Your task to perform on an android device: turn on airplane mode Image 0: 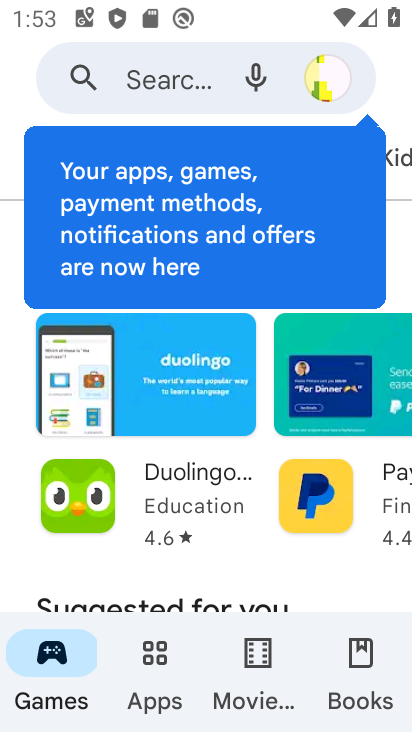
Step 0: press home button
Your task to perform on an android device: turn on airplane mode Image 1: 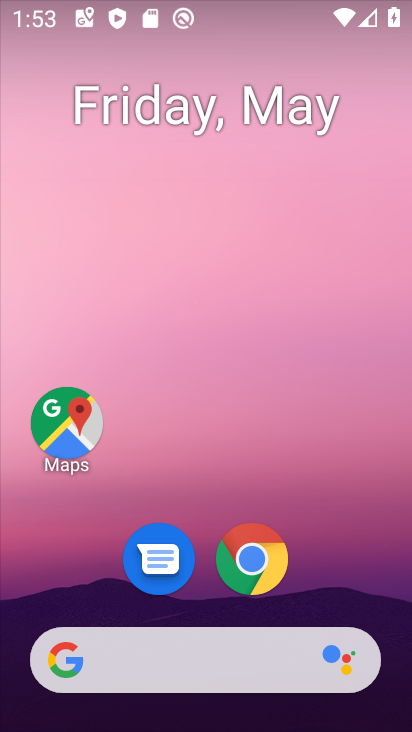
Step 1: drag from (325, 572) to (327, 254)
Your task to perform on an android device: turn on airplane mode Image 2: 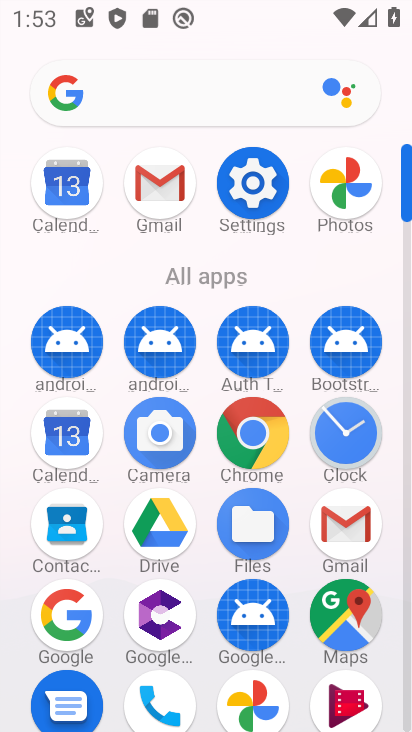
Step 2: click (246, 185)
Your task to perform on an android device: turn on airplane mode Image 3: 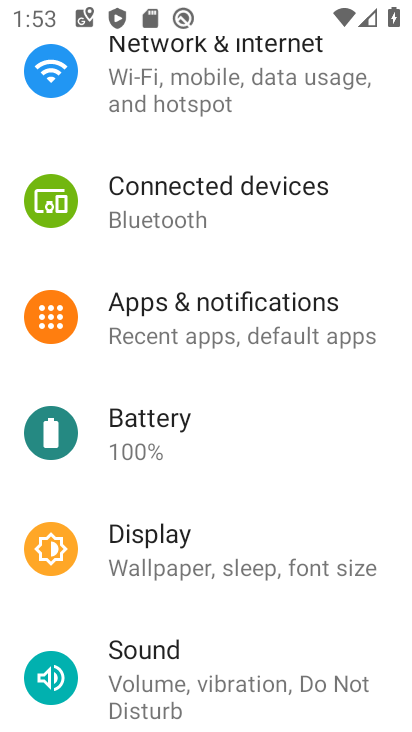
Step 3: click (252, 101)
Your task to perform on an android device: turn on airplane mode Image 4: 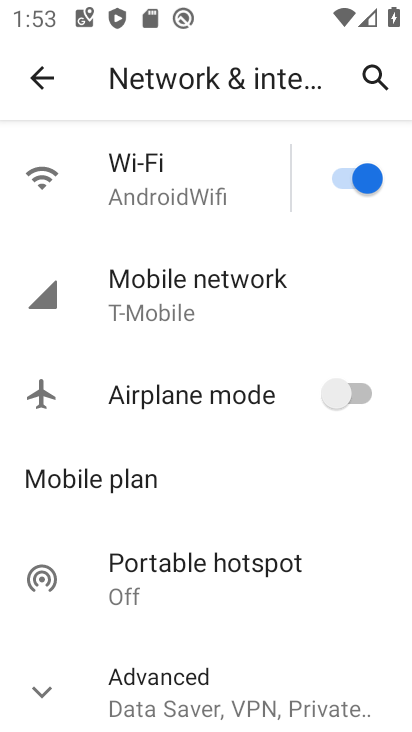
Step 4: click (341, 403)
Your task to perform on an android device: turn on airplane mode Image 5: 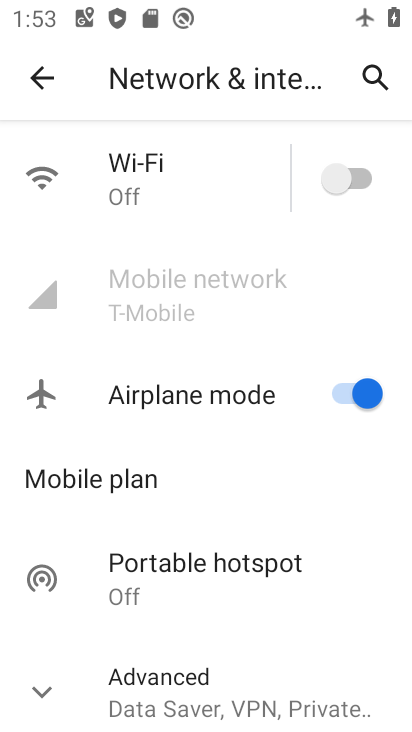
Step 5: task complete